Your task to perform on an android device: turn off translation in the chrome app Image 0: 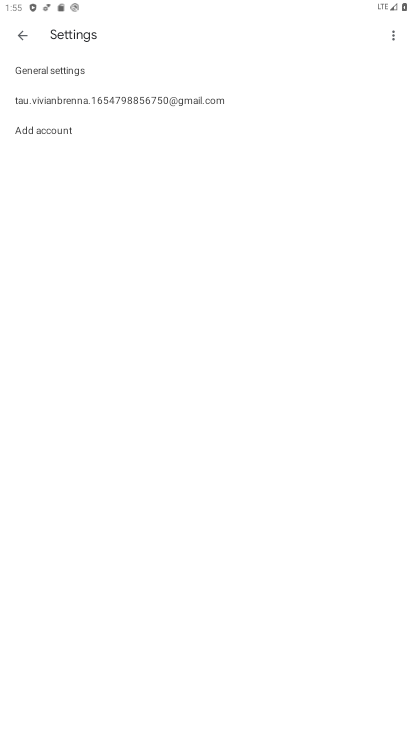
Step 0: press home button
Your task to perform on an android device: turn off translation in the chrome app Image 1: 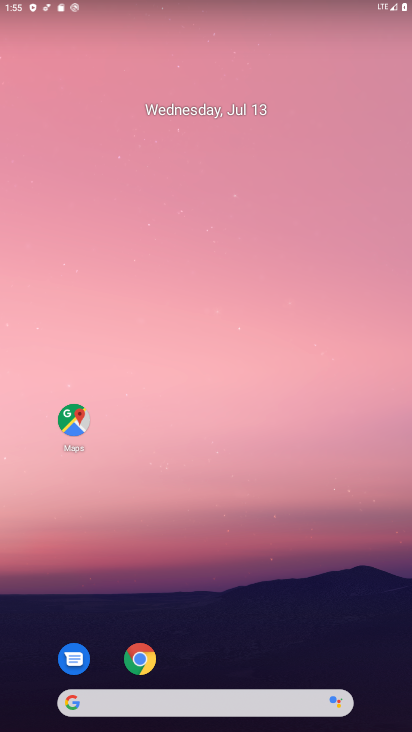
Step 1: click (137, 658)
Your task to perform on an android device: turn off translation in the chrome app Image 2: 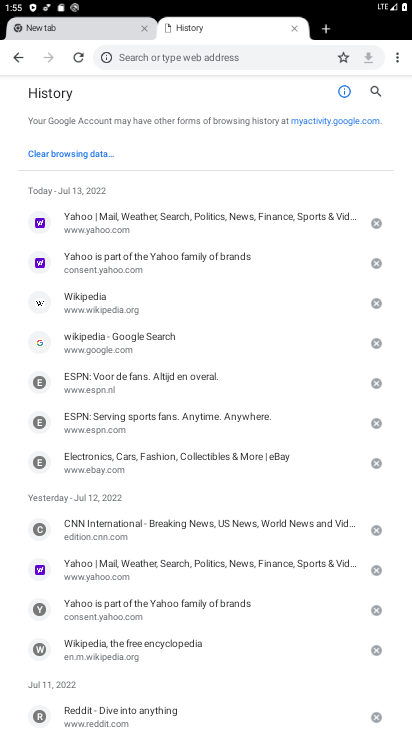
Step 2: click (394, 60)
Your task to perform on an android device: turn off translation in the chrome app Image 3: 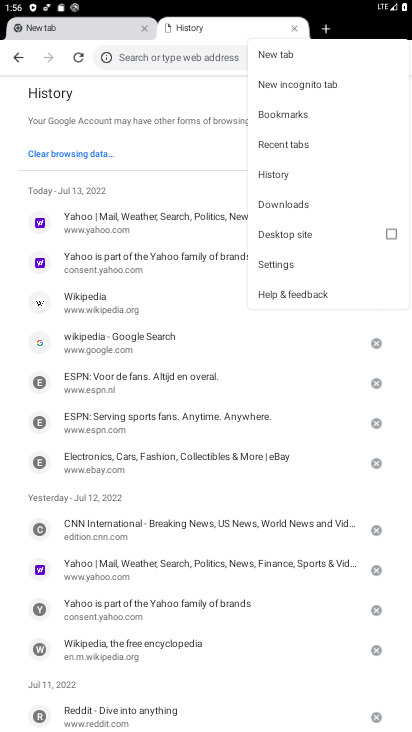
Step 3: click (262, 265)
Your task to perform on an android device: turn off translation in the chrome app Image 4: 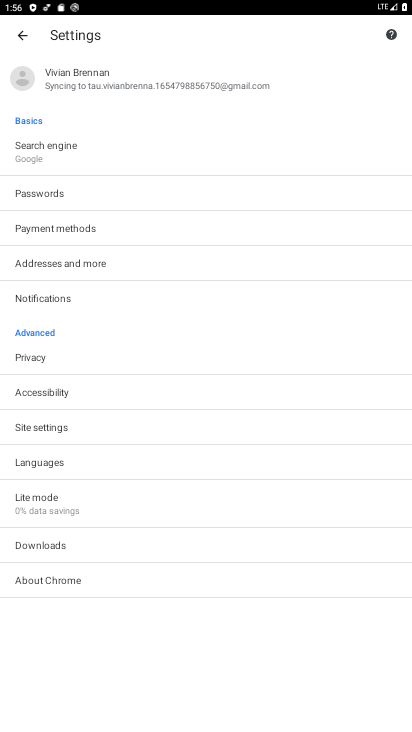
Step 4: click (32, 462)
Your task to perform on an android device: turn off translation in the chrome app Image 5: 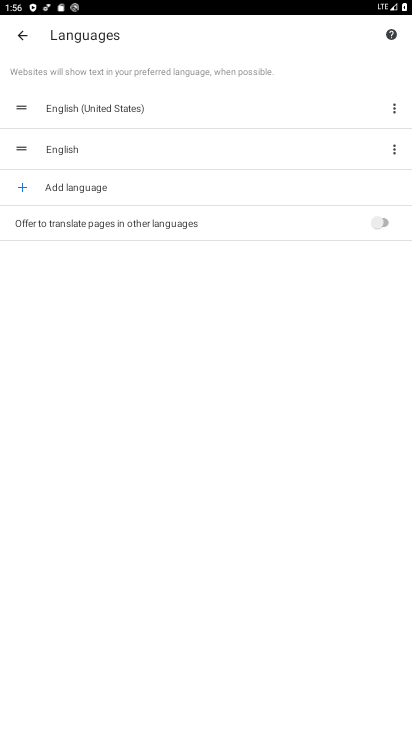
Step 5: task complete